Your task to perform on an android device: turn off priority inbox in the gmail app Image 0: 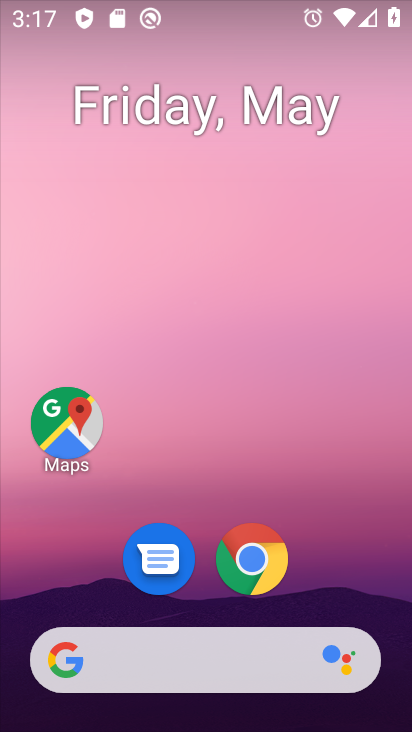
Step 0: drag from (328, 600) to (295, 228)
Your task to perform on an android device: turn off priority inbox in the gmail app Image 1: 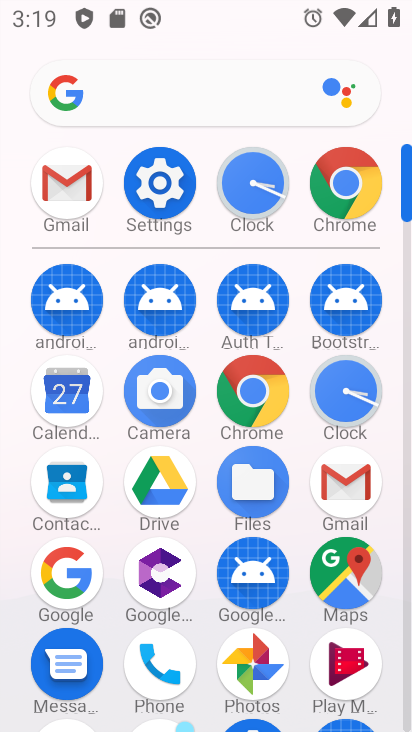
Step 1: task complete